Your task to perform on an android device: turn off location history Image 0: 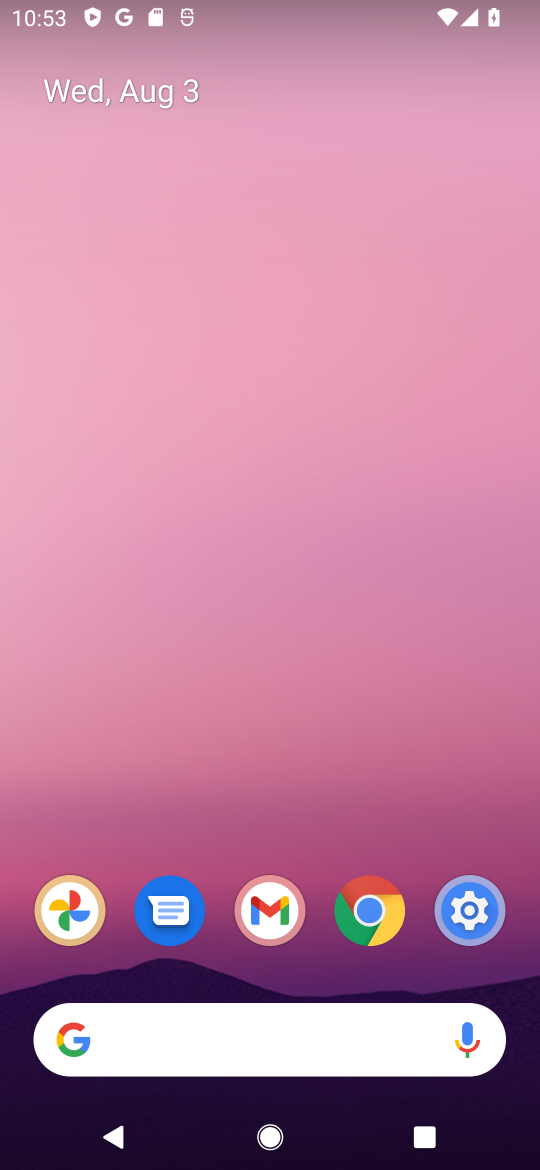
Step 0: drag from (368, 835) to (430, 230)
Your task to perform on an android device: turn off location history Image 1: 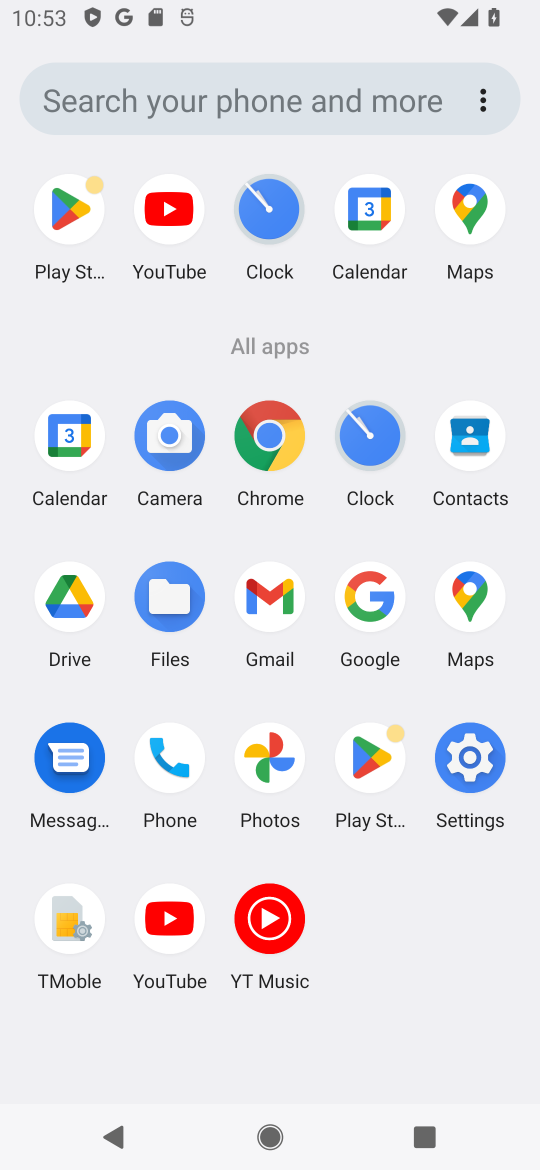
Step 1: click (466, 774)
Your task to perform on an android device: turn off location history Image 2: 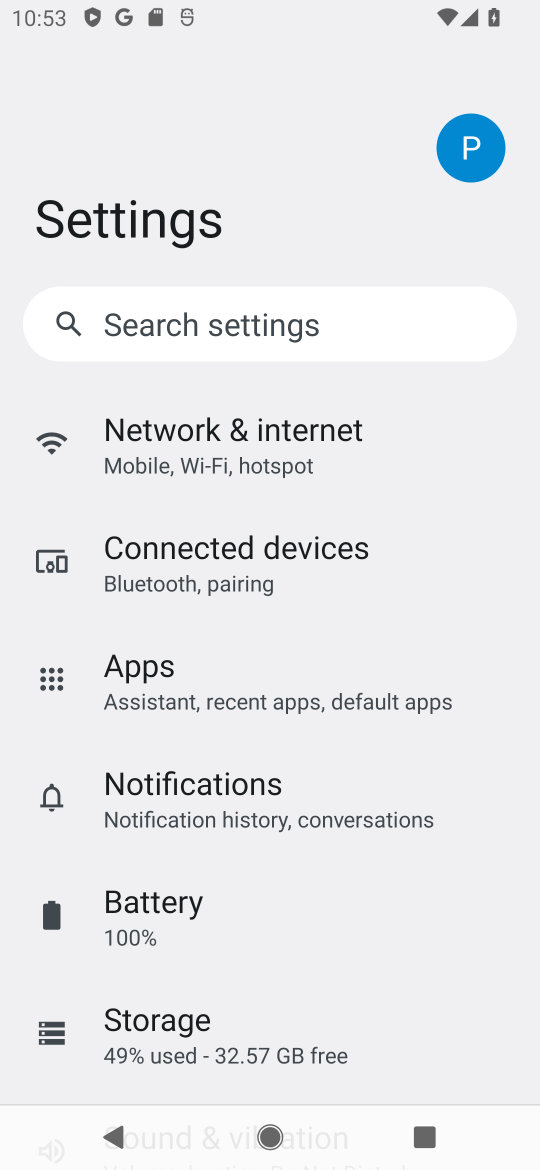
Step 2: drag from (260, 980) to (301, 344)
Your task to perform on an android device: turn off location history Image 3: 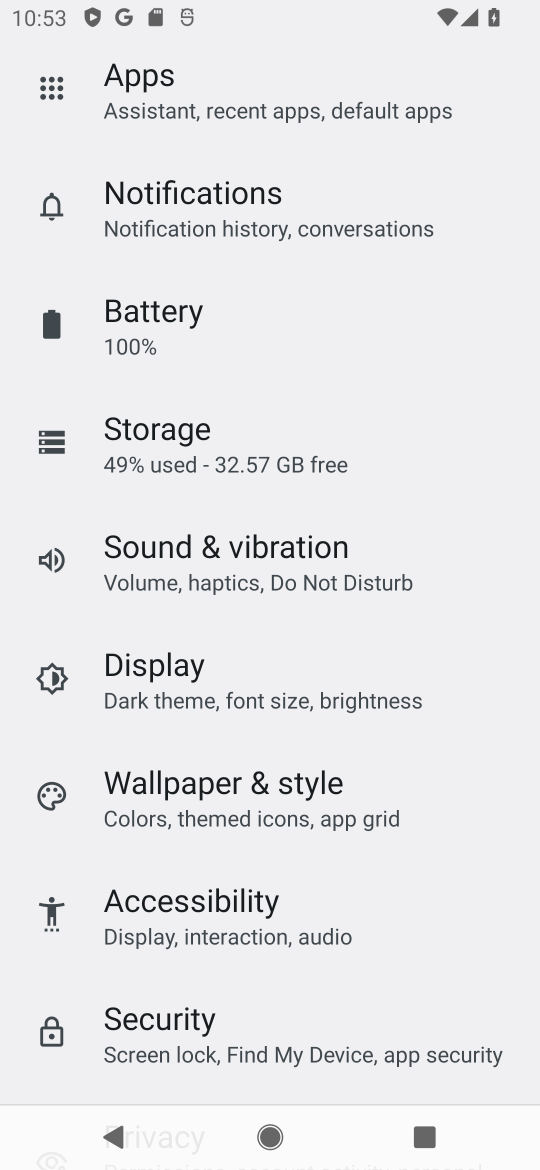
Step 3: drag from (486, 880) to (460, 267)
Your task to perform on an android device: turn off location history Image 4: 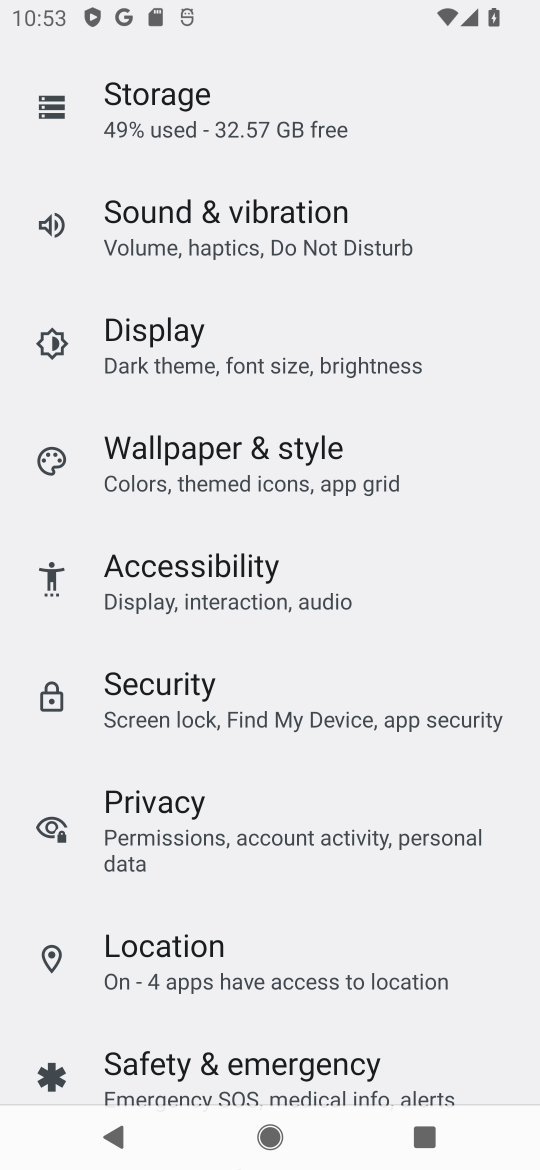
Step 4: click (142, 955)
Your task to perform on an android device: turn off location history Image 5: 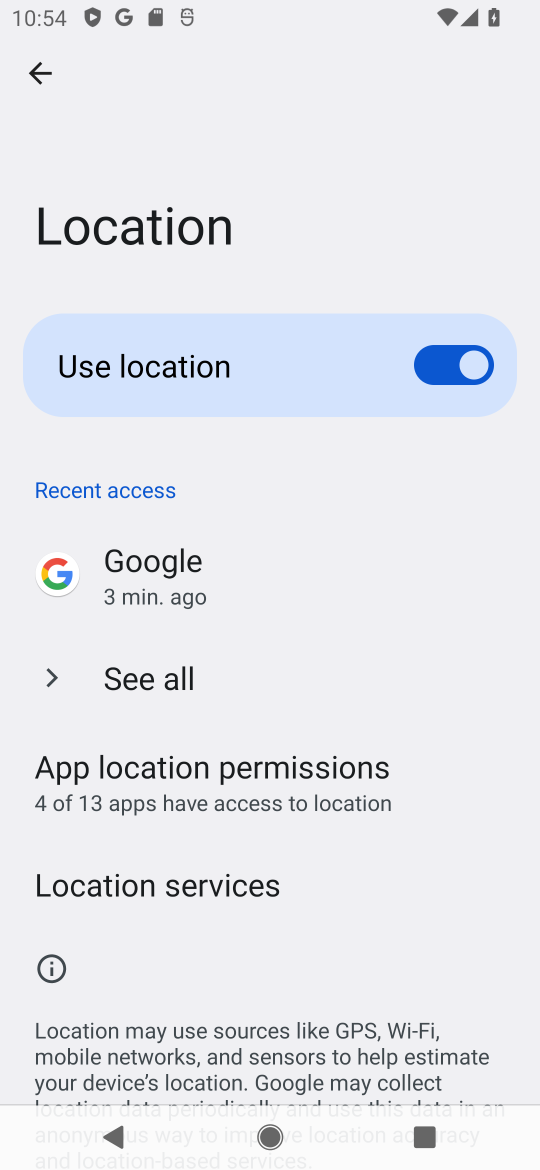
Step 5: click (157, 885)
Your task to perform on an android device: turn off location history Image 6: 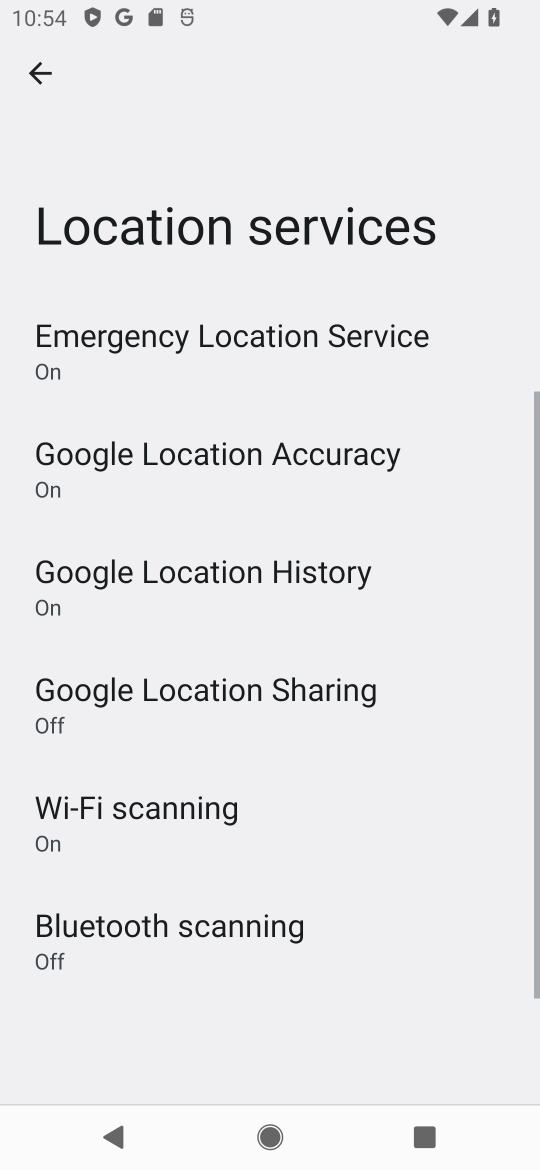
Step 6: click (187, 575)
Your task to perform on an android device: turn off location history Image 7: 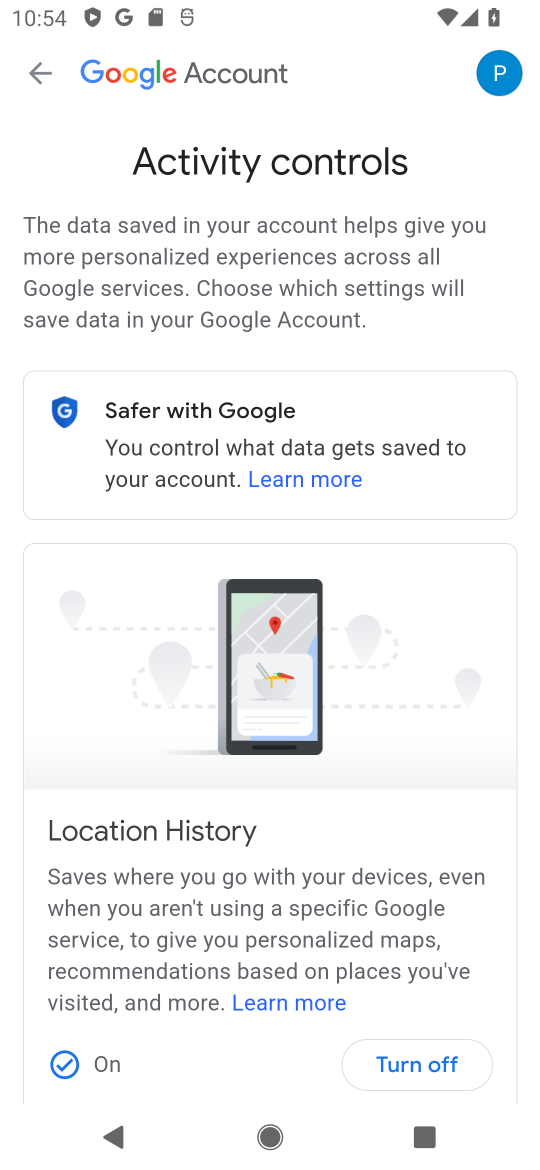
Step 7: click (421, 1062)
Your task to perform on an android device: turn off location history Image 8: 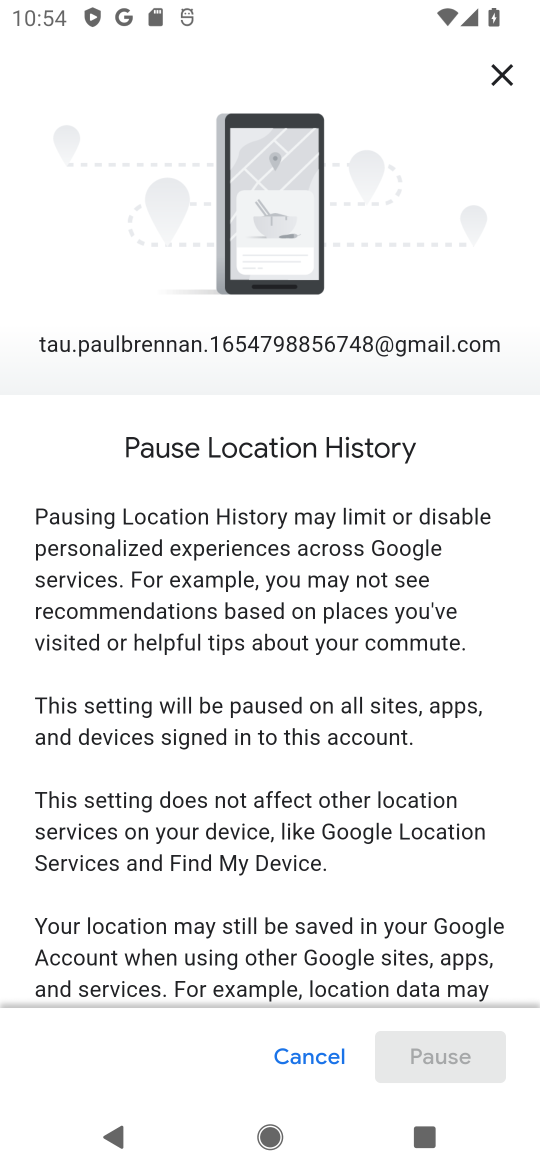
Step 8: click (441, 1065)
Your task to perform on an android device: turn off location history Image 9: 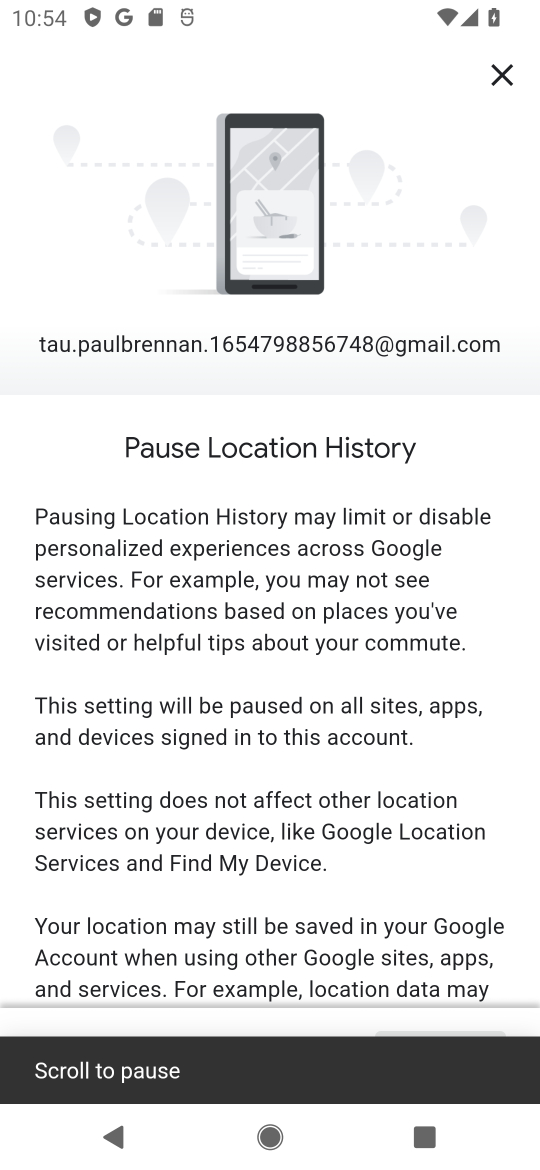
Step 9: drag from (504, 970) to (540, 182)
Your task to perform on an android device: turn off location history Image 10: 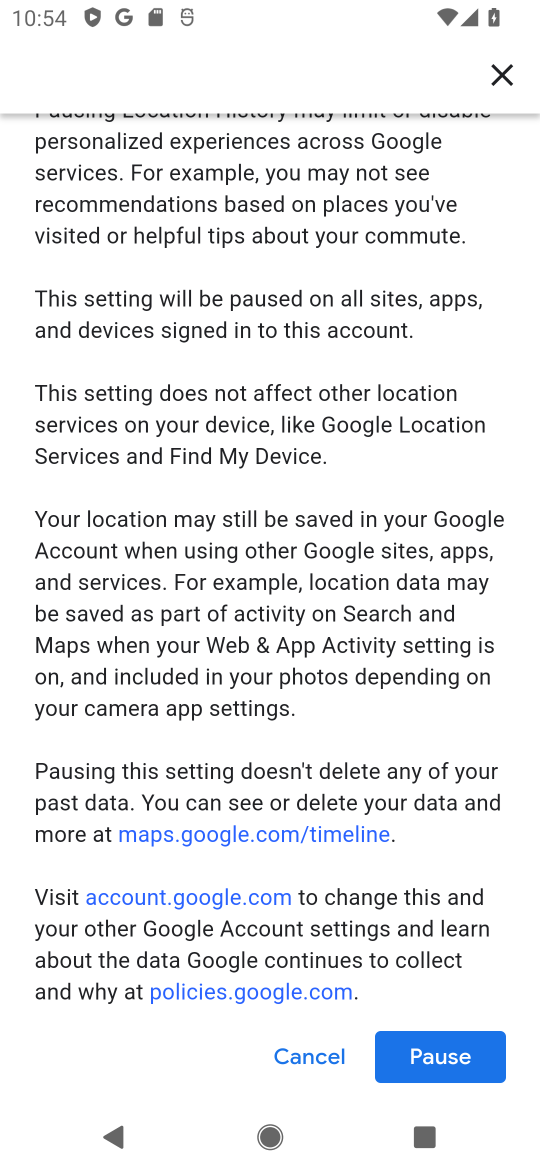
Step 10: click (446, 1046)
Your task to perform on an android device: turn off location history Image 11: 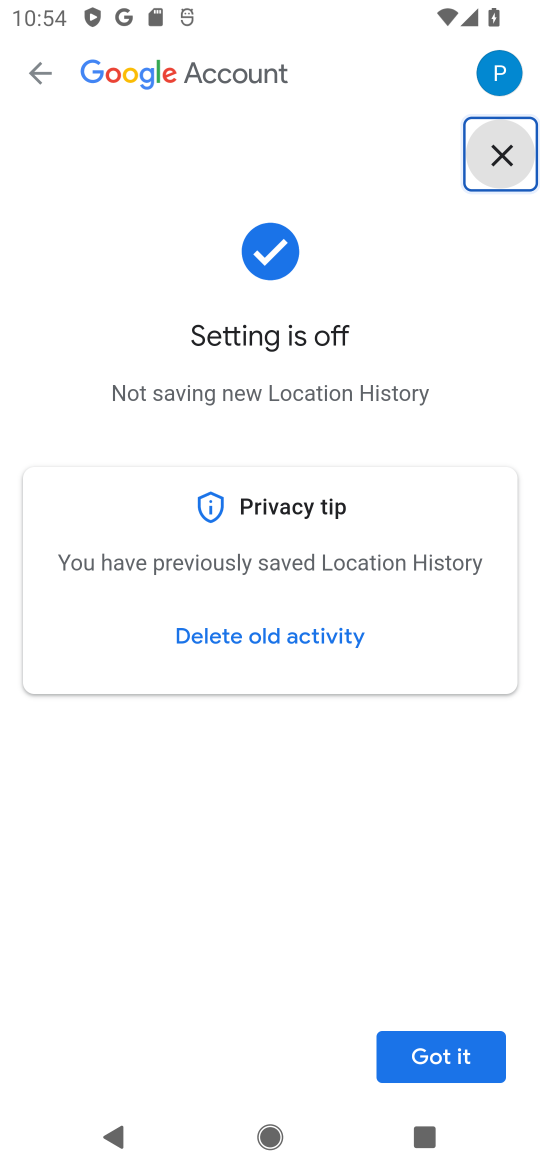
Step 11: click (432, 1058)
Your task to perform on an android device: turn off location history Image 12: 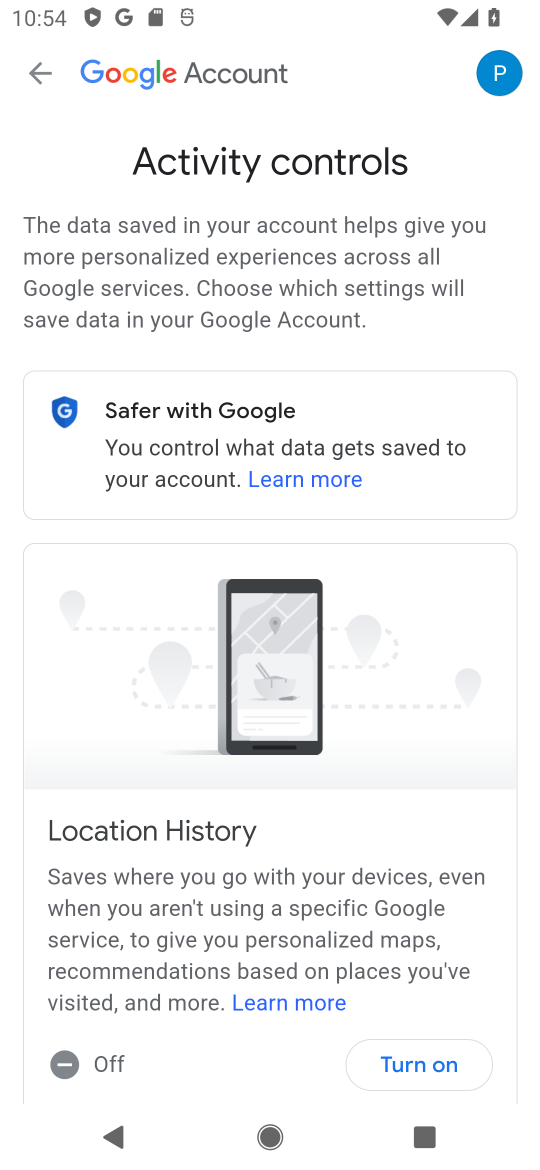
Step 12: task complete